Your task to perform on an android device: Open Google Chrome Image 0: 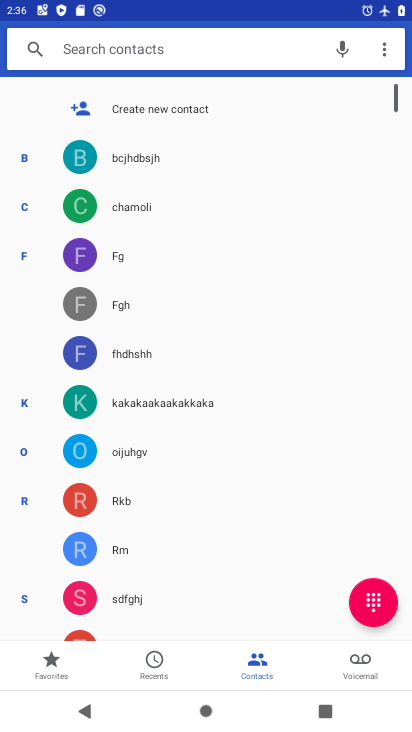
Step 0: press home button
Your task to perform on an android device: Open Google Chrome Image 1: 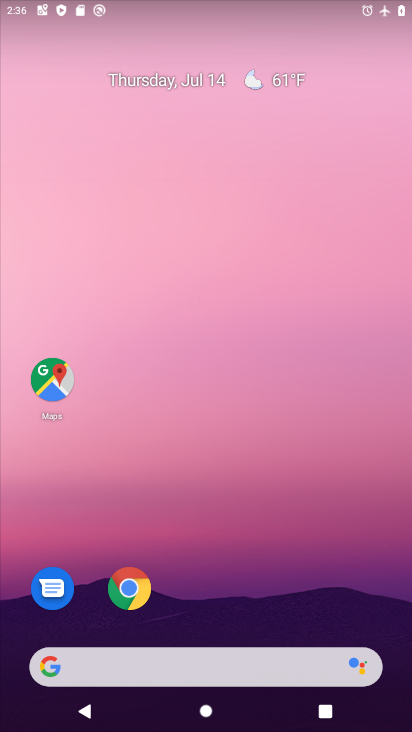
Step 1: drag from (274, 624) to (290, 287)
Your task to perform on an android device: Open Google Chrome Image 2: 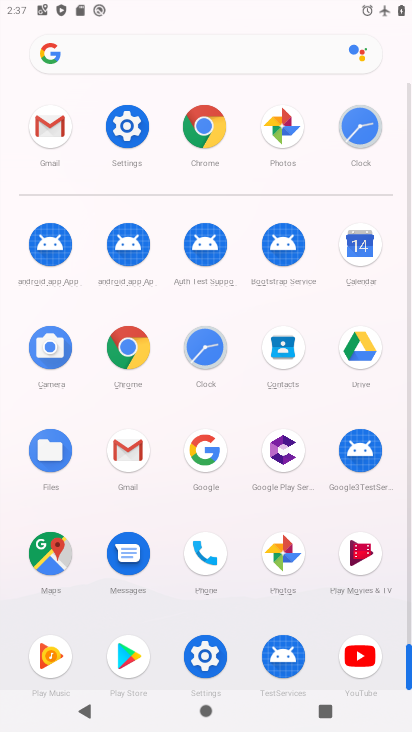
Step 2: click (213, 122)
Your task to perform on an android device: Open Google Chrome Image 3: 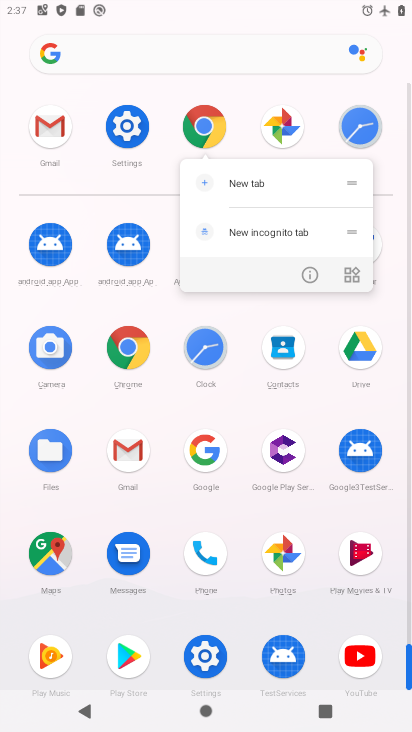
Step 3: click (197, 120)
Your task to perform on an android device: Open Google Chrome Image 4: 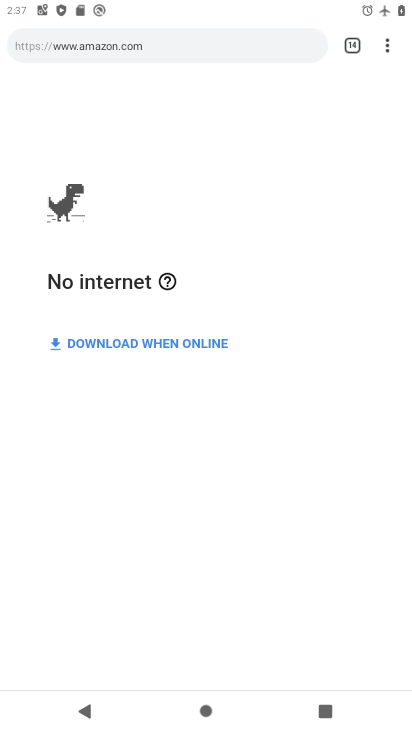
Step 4: click (382, 36)
Your task to perform on an android device: Open Google Chrome Image 5: 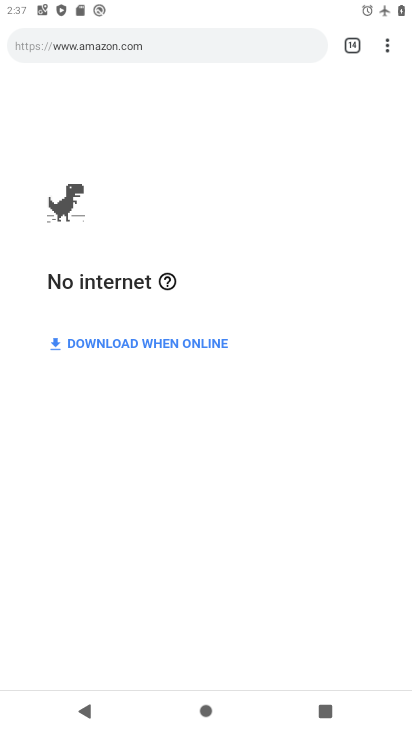
Step 5: click (374, 39)
Your task to perform on an android device: Open Google Chrome Image 6: 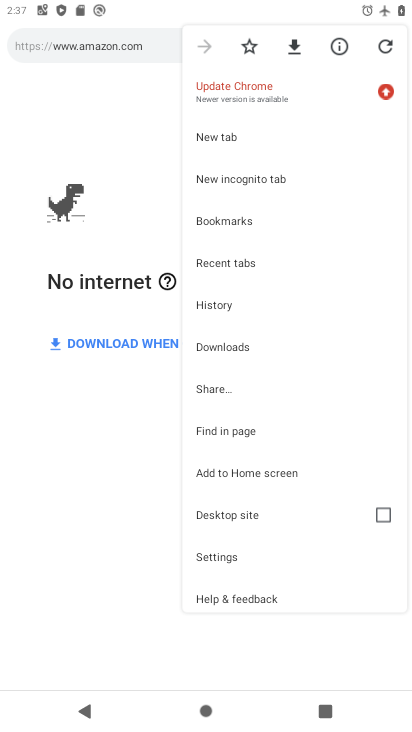
Step 6: click (224, 136)
Your task to perform on an android device: Open Google Chrome Image 7: 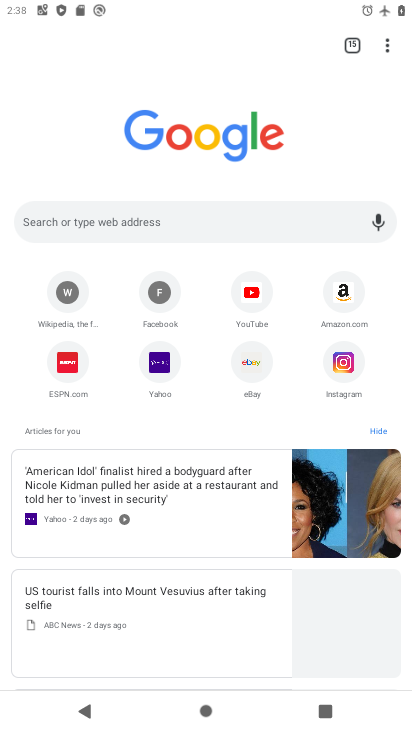
Step 7: task complete